Your task to perform on an android device: Open Amazon Image 0: 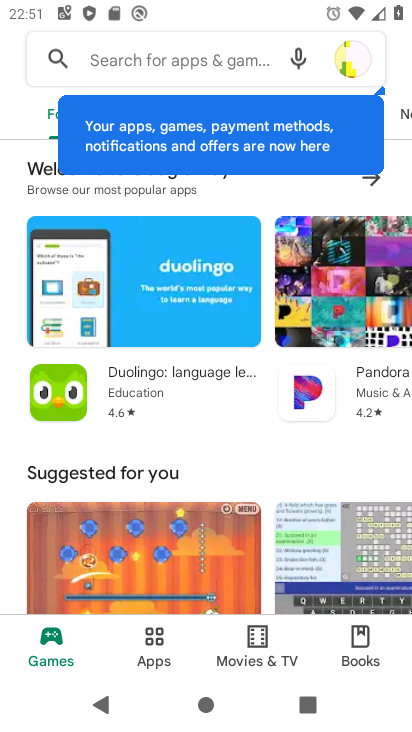
Step 0: press home button
Your task to perform on an android device: Open Amazon Image 1: 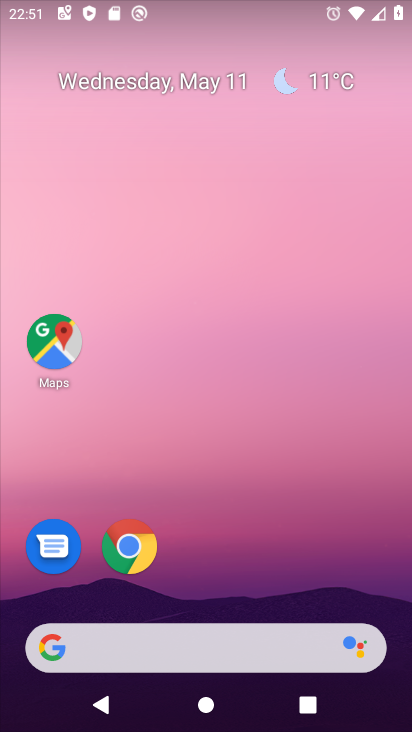
Step 1: click (127, 540)
Your task to perform on an android device: Open Amazon Image 2: 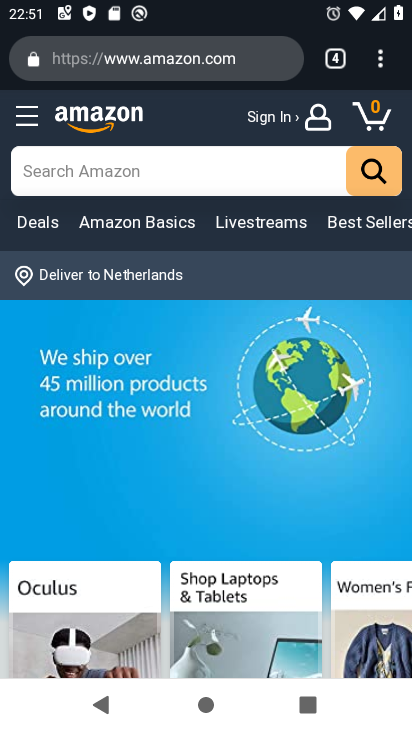
Step 2: task complete